Your task to perform on an android device: Open calendar and show me the second week of next month Image 0: 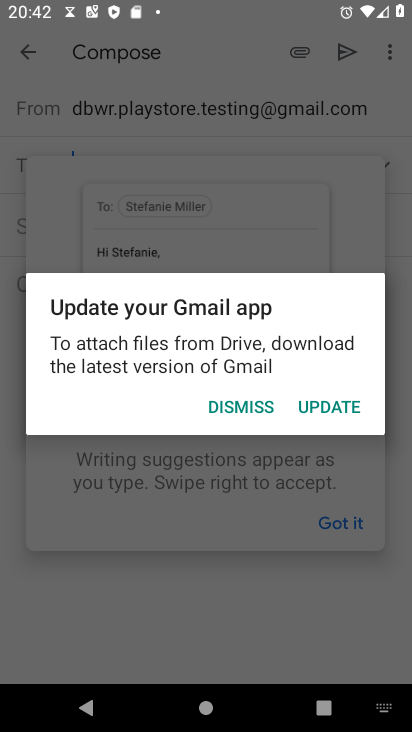
Step 0: press home button
Your task to perform on an android device: Open calendar and show me the second week of next month Image 1: 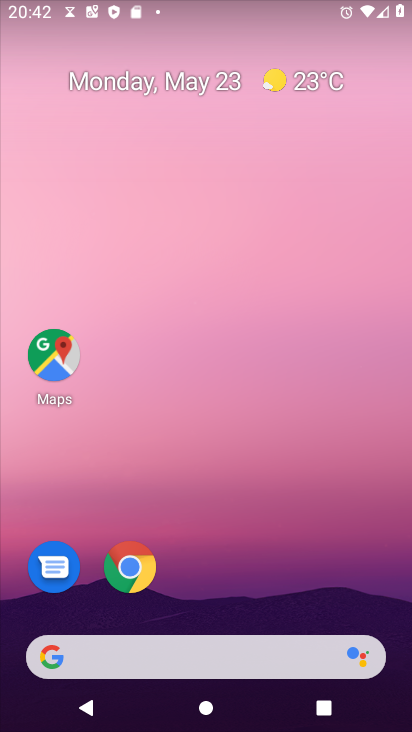
Step 1: drag from (262, 594) to (288, 215)
Your task to perform on an android device: Open calendar and show me the second week of next month Image 2: 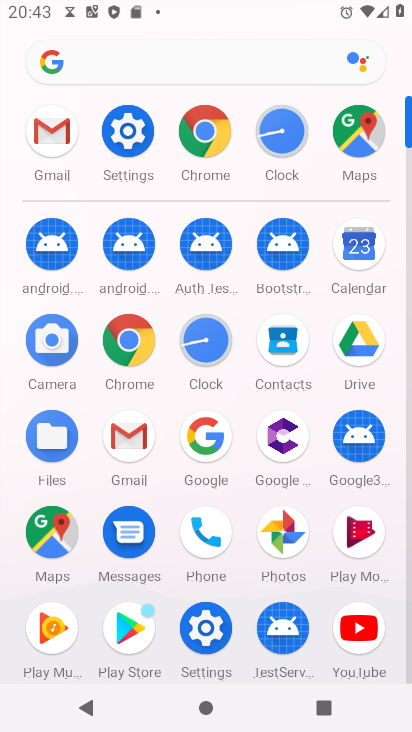
Step 2: click (348, 251)
Your task to perform on an android device: Open calendar and show me the second week of next month Image 3: 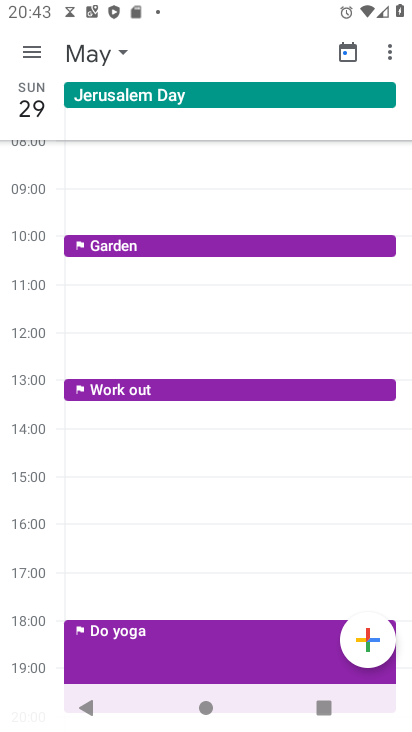
Step 3: click (31, 53)
Your task to perform on an android device: Open calendar and show me the second week of next month Image 4: 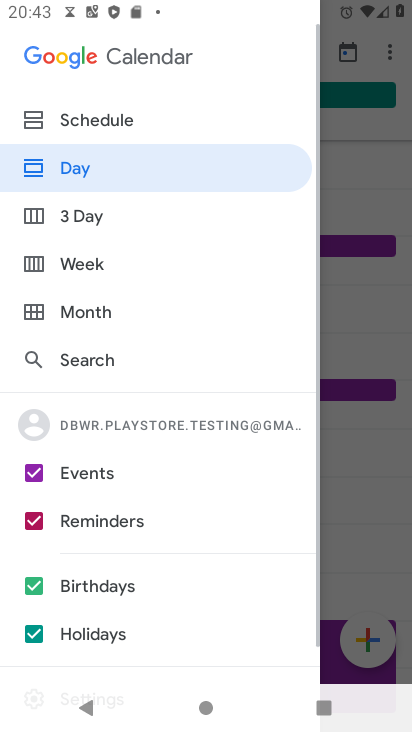
Step 4: click (88, 314)
Your task to perform on an android device: Open calendar and show me the second week of next month Image 5: 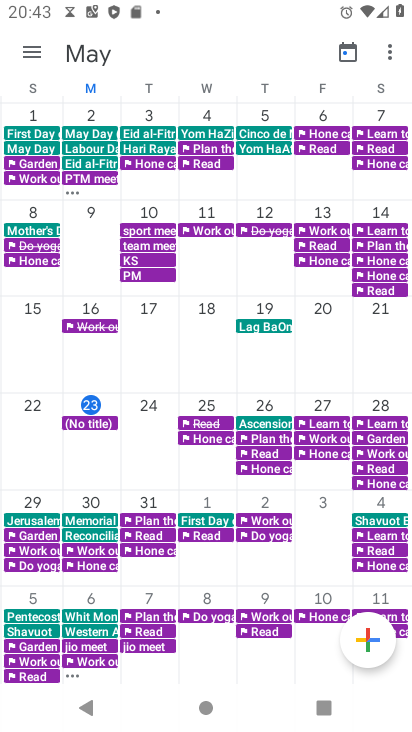
Step 5: task complete